Your task to perform on an android device: What's on my calendar today? Image 0: 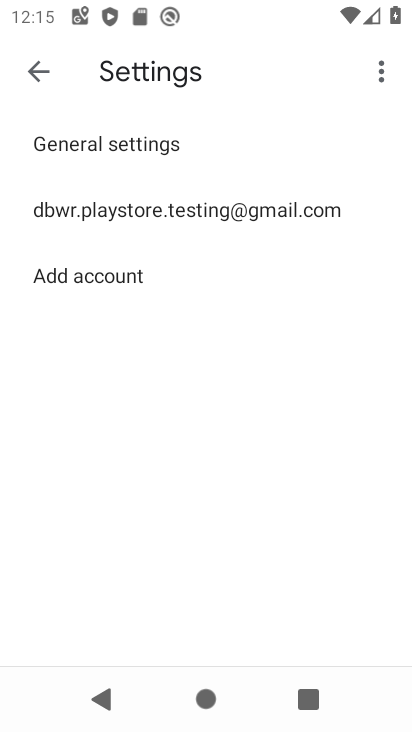
Step 0: press home button
Your task to perform on an android device: What's on my calendar today? Image 1: 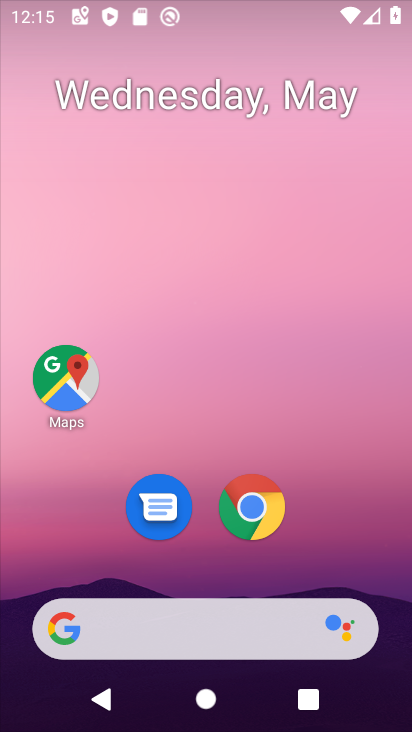
Step 1: drag from (330, 473) to (339, 262)
Your task to perform on an android device: What's on my calendar today? Image 2: 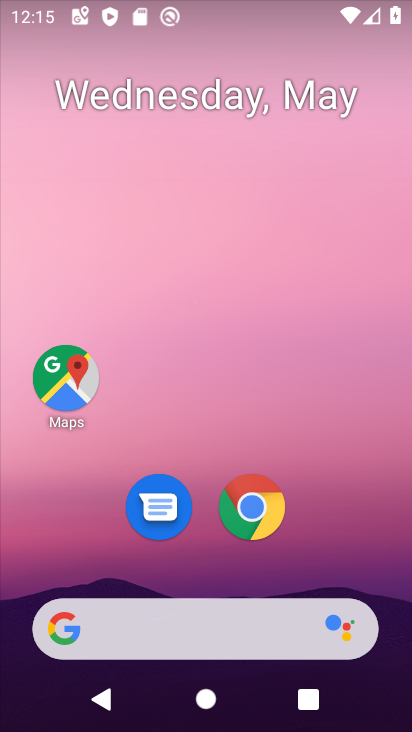
Step 2: drag from (280, 436) to (280, 274)
Your task to perform on an android device: What's on my calendar today? Image 3: 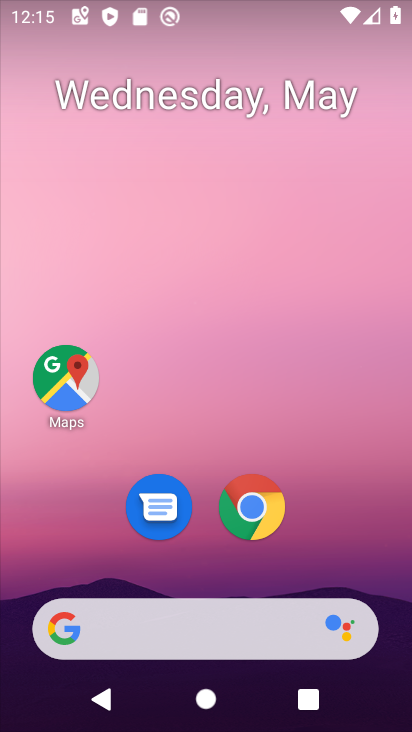
Step 3: drag from (265, 446) to (269, 190)
Your task to perform on an android device: What's on my calendar today? Image 4: 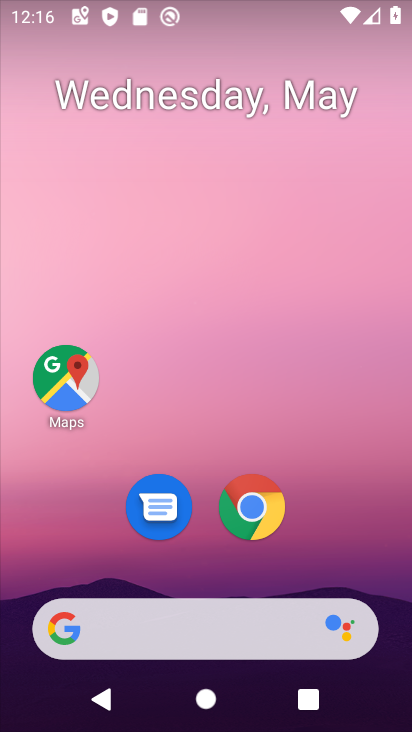
Step 4: drag from (141, 632) to (237, 220)
Your task to perform on an android device: What's on my calendar today? Image 5: 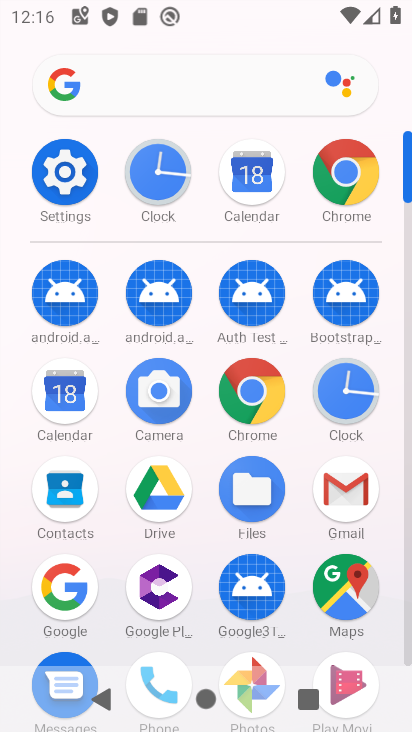
Step 5: click (82, 378)
Your task to perform on an android device: What's on my calendar today? Image 6: 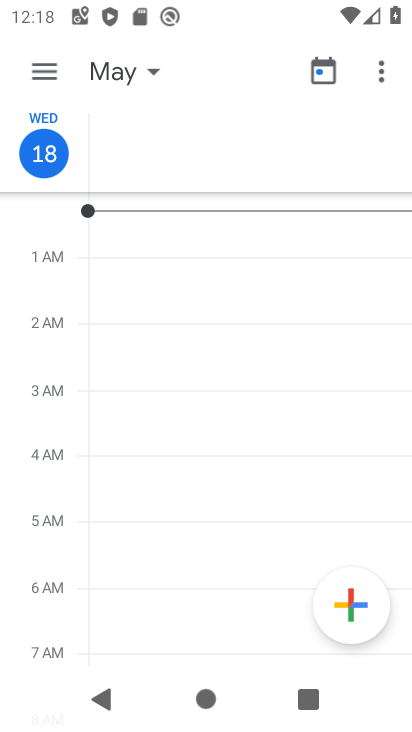
Step 6: task complete